Your task to perform on an android device: Open the stopwatch Image 0: 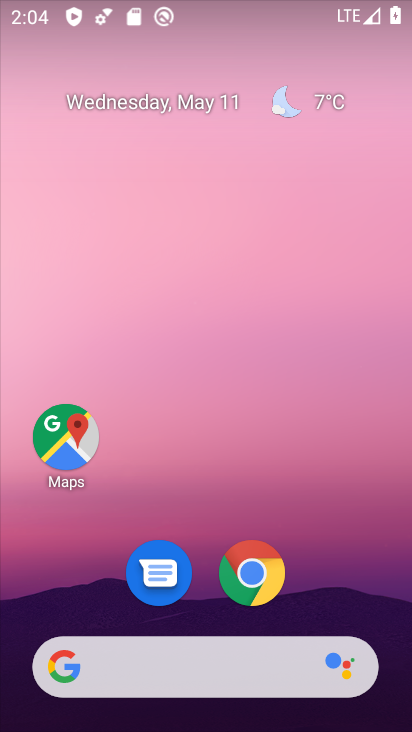
Step 0: drag from (188, 628) to (264, 156)
Your task to perform on an android device: Open the stopwatch Image 1: 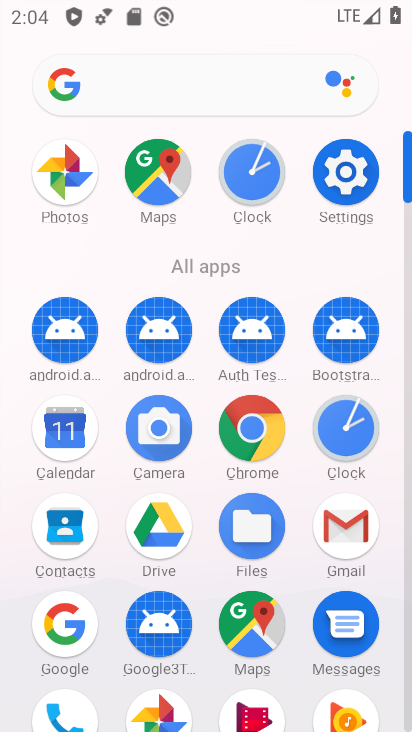
Step 1: click (361, 437)
Your task to perform on an android device: Open the stopwatch Image 2: 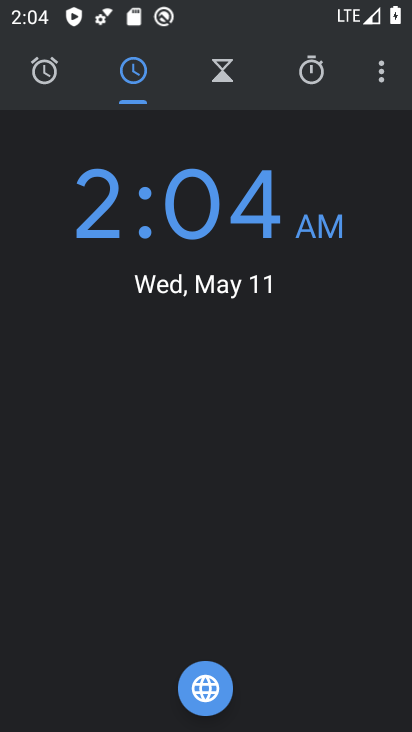
Step 2: click (319, 83)
Your task to perform on an android device: Open the stopwatch Image 3: 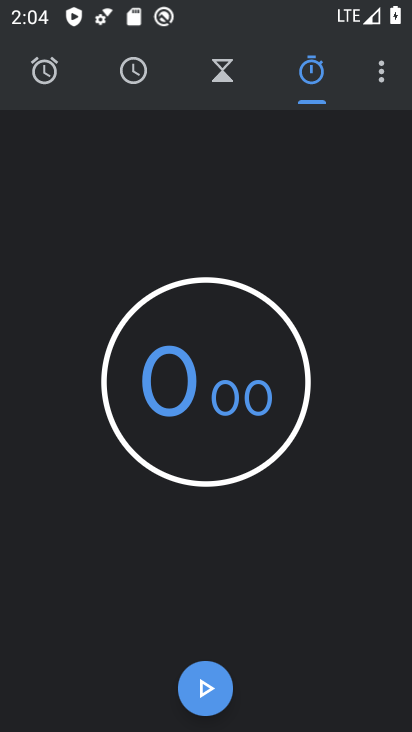
Step 3: task complete